Your task to perform on an android device: Show me popular videos on Youtube Image 0: 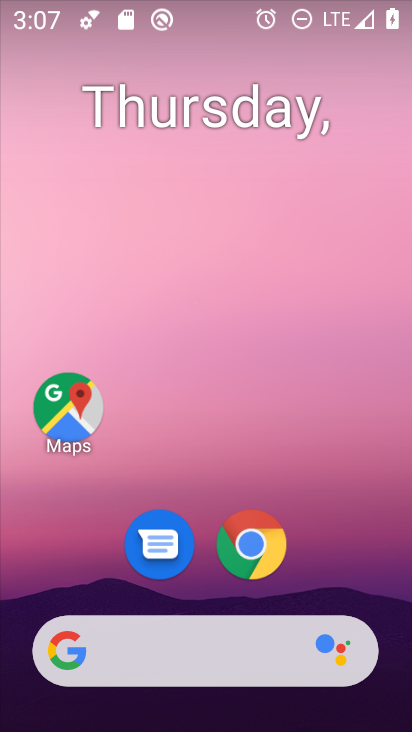
Step 0: drag from (322, 573) to (388, 140)
Your task to perform on an android device: Show me popular videos on Youtube Image 1: 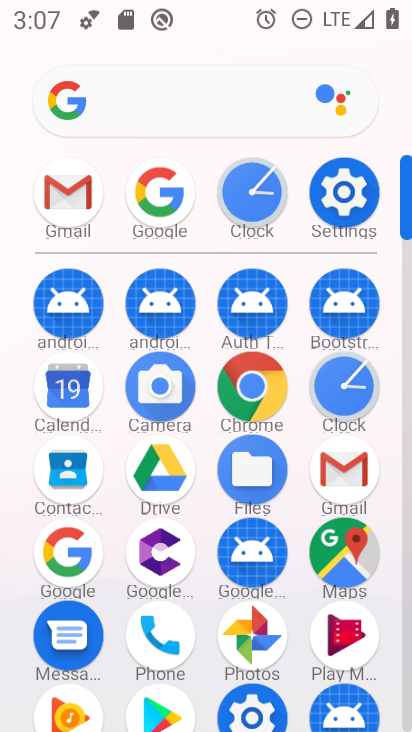
Step 1: drag from (143, 605) to (221, 179)
Your task to perform on an android device: Show me popular videos on Youtube Image 2: 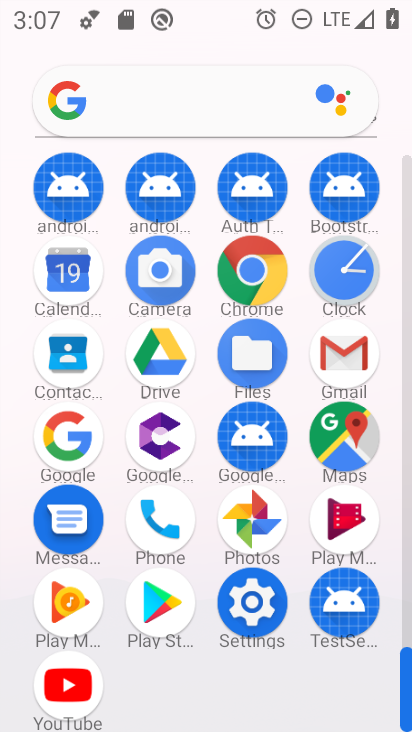
Step 2: click (58, 666)
Your task to perform on an android device: Show me popular videos on Youtube Image 3: 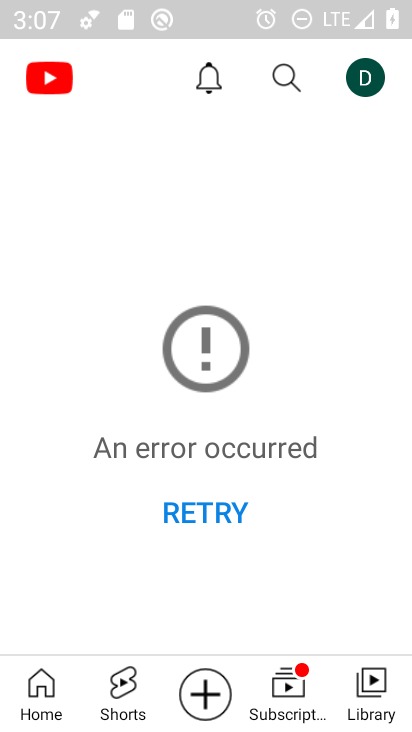
Step 3: task complete